Your task to perform on an android device: Open Yahoo.com Image 0: 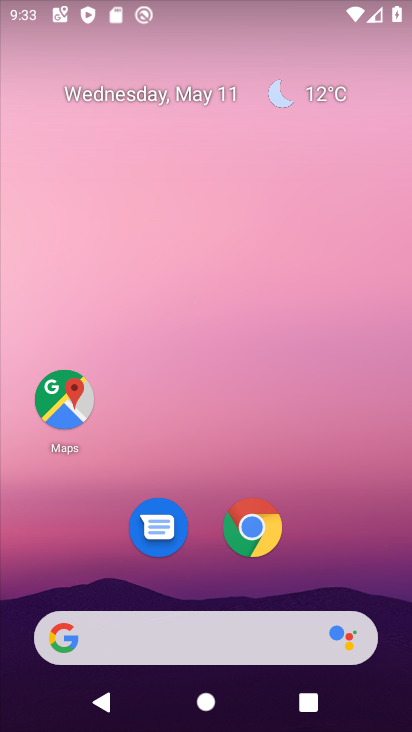
Step 0: drag from (316, 573) to (150, 10)
Your task to perform on an android device: Open Yahoo.com Image 1: 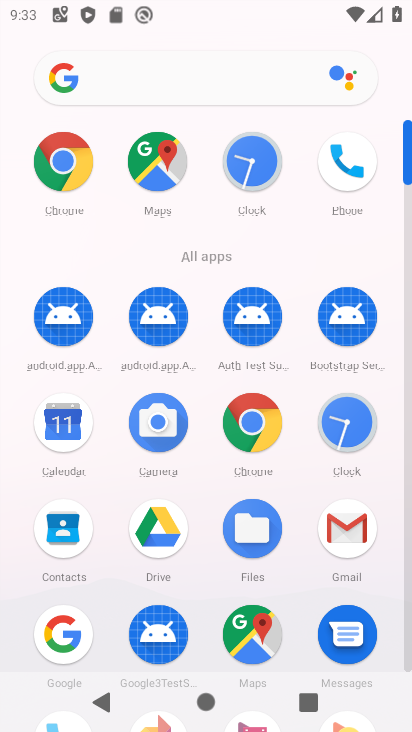
Step 1: click (64, 147)
Your task to perform on an android device: Open Yahoo.com Image 2: 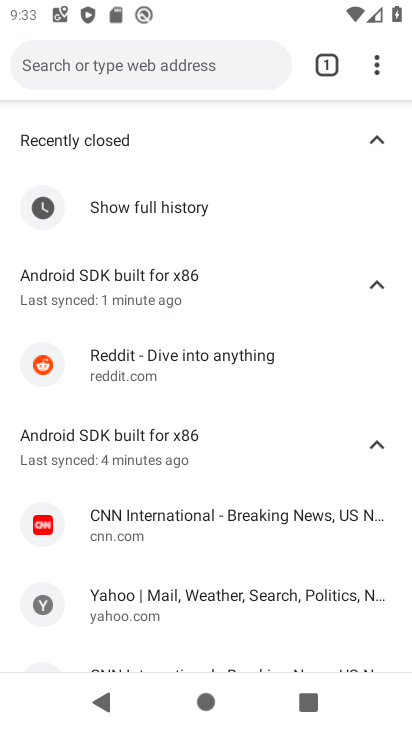
Step 2: click (127, 62)
Your task to perform on an android device: Open Yahoo.com Image 3: 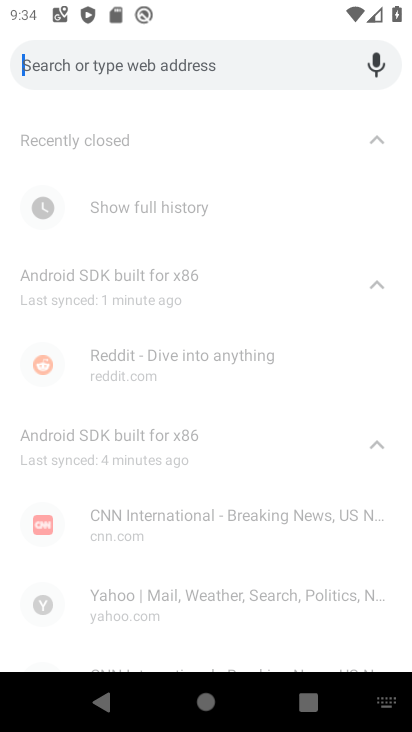
Step 3: type "yahoo.com"
Your task to perform on an android device: Open Yahoo.com Image 4: 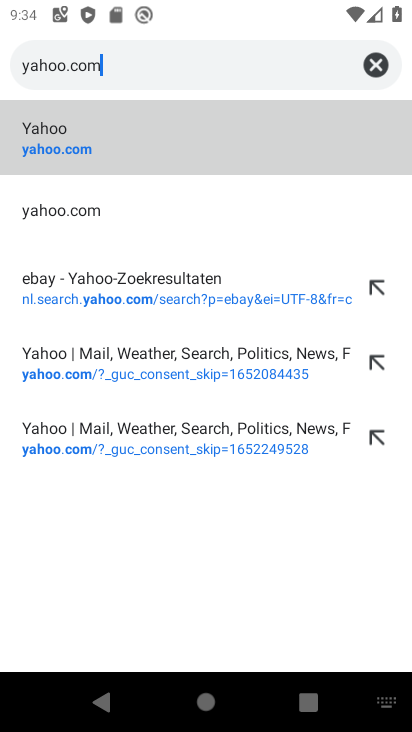
Step 4: click (76, 135)
Your task to perform on an android device: Open Yahoo.com Image 5: 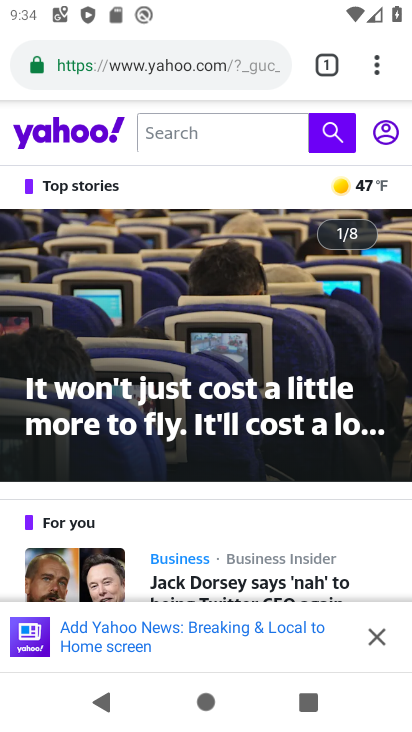
Step 5: task complete